Your task to perform on an android device: Open the Play Movies app and select the watchlist tab. Image 0: 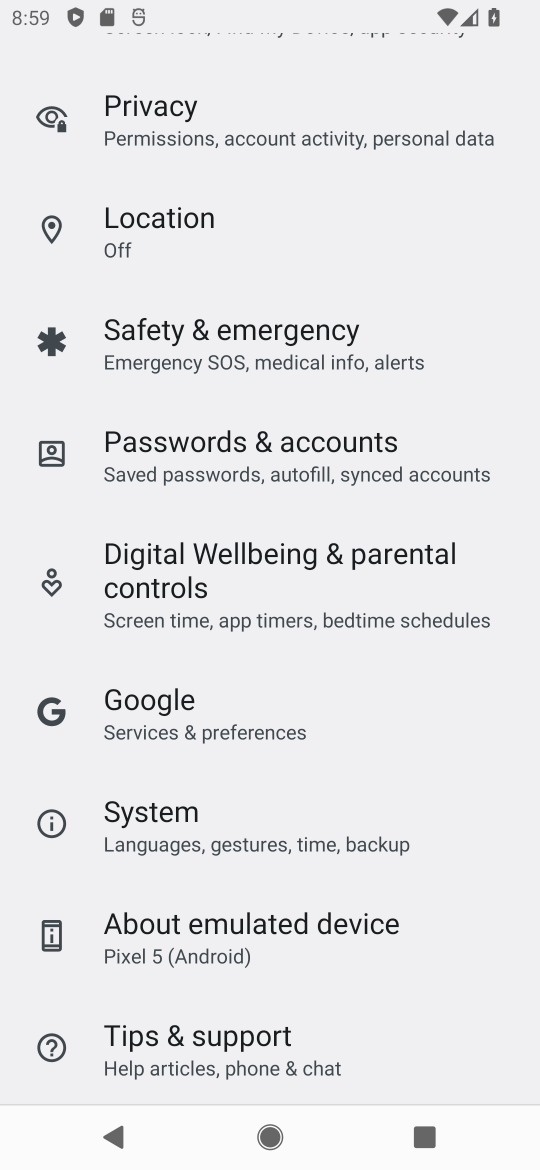
Step 0: press home button
Your task to perform on an android device: Open the Play Movies app and select the watchlist tab. Image 1: 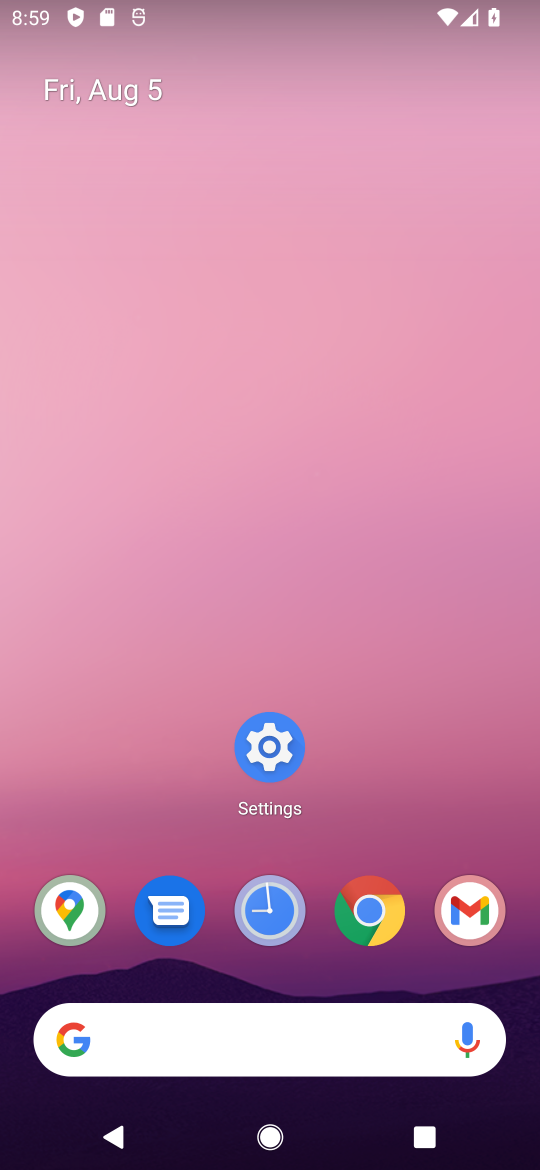
Step 1: task complete